Your task to perform on an android device: turn off javascript in the chrome app Image 0: 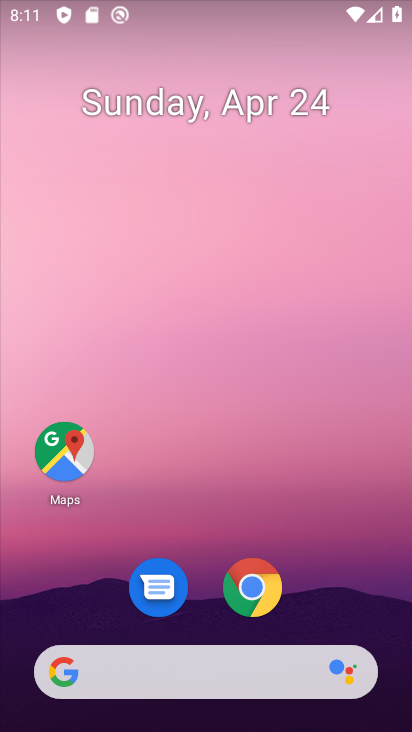
Step 0: drag from (215, 570) to (290, 64)
Your task to perform on an android device: turn off javascript in the chrome app Image 1: 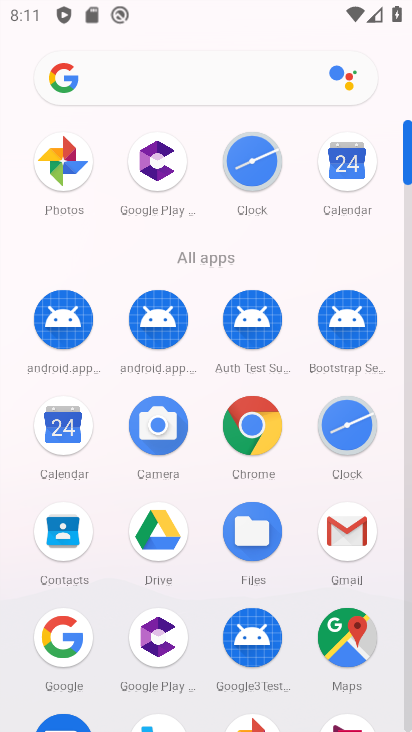
Step 1: drag from (193, 602) to (286, 115)
Your task to perform on an android device: turn off javascript in the chrome app Image 2: 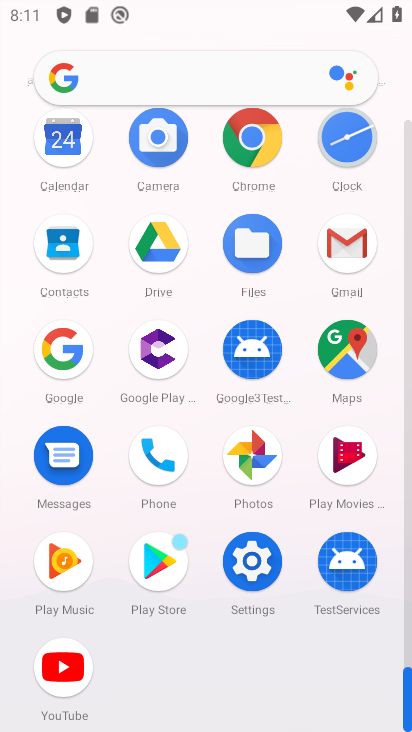
Step 2: click (257, 131)
Your task to perform on an android device: turn off javascript in the chrome app Image 3: 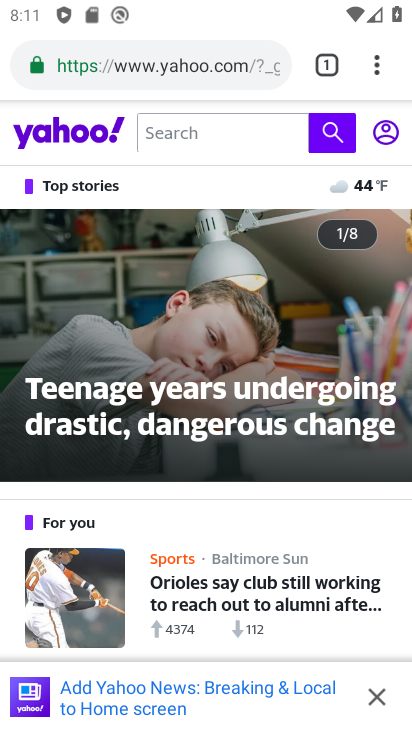
Step 3: drag from (376, 57) to (175, 658)
Your task to perform on an android device: turn off javascript in the chrome app Image 4: 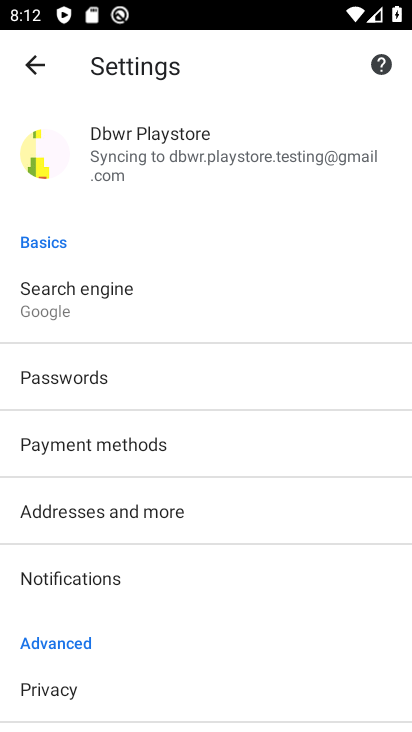
Step 4: drag from (132, 654) to (212, 155)
Your task to perform on an android device: turn off javascript in the chrome app Image 5: 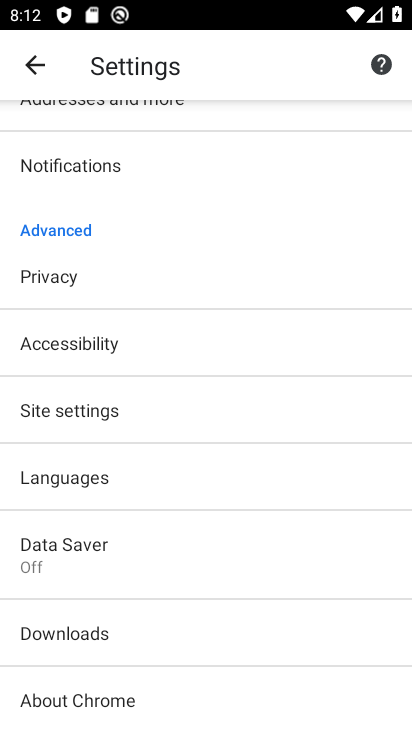
Step 5: click (81, 409)
Your task to perform on an android device: turn off javascript in the chrome app Image 6: 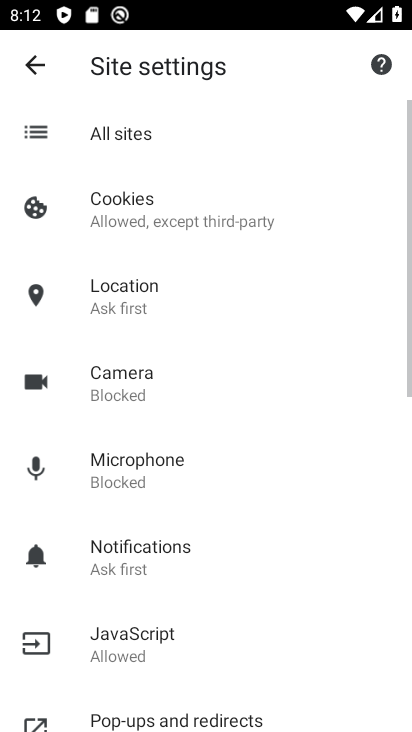
Step 6: click (131, 635)
Your task to perform on an android device: turn off javascript in the chrome app Image 7: 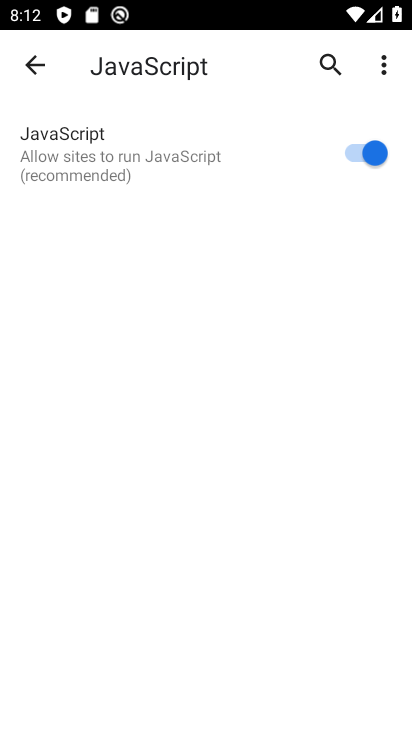
Step 7: click (370, 155)
Your task to perform on an android device: turn off javascript in the chrome app Image 8: 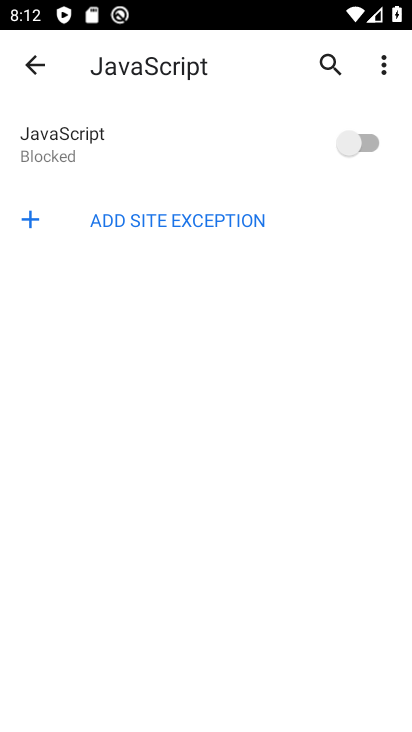
Step 8: task complete